Your task to perform on an android device: open app "Clock" (install if not already installed) Image 0: 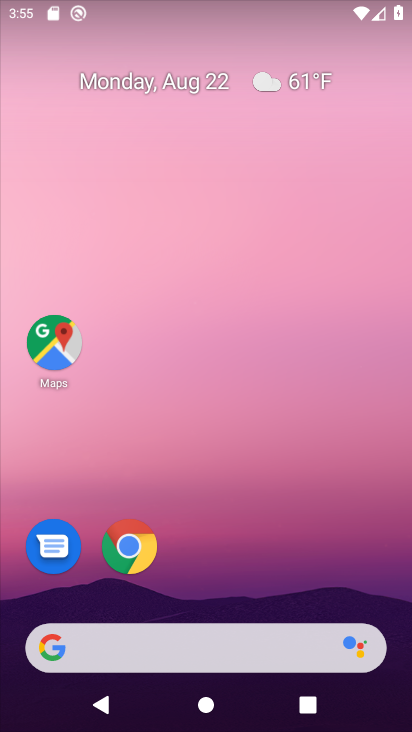
Step 0: drag from (373, 593) to (357, 126)
Your task to perform on an android device: open app "Clock" (install if not already installed) Image 1: 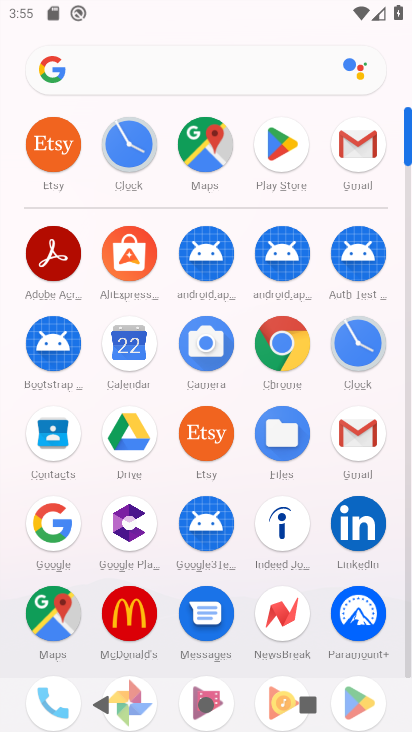
Step 1: click (359, 345)
Your task to perform on an android device: open app "Clock" (install if not already installed) Image 2: 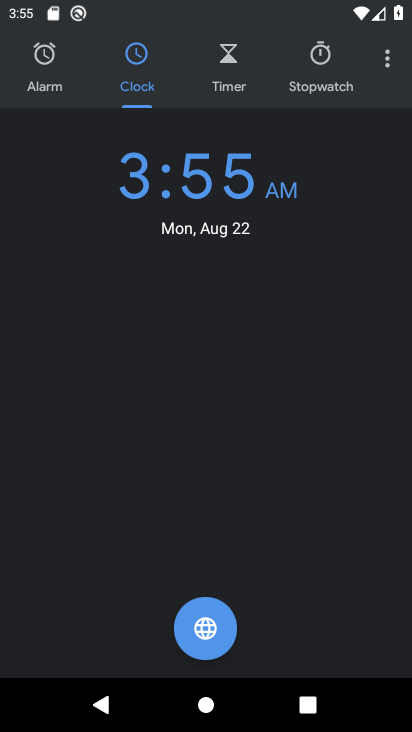
Step 2: task complete